Your task to perform on an android device: turn off sleep mode Image 0: 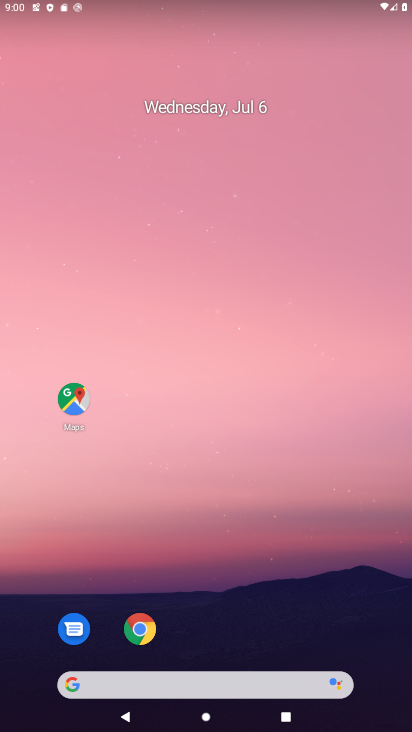
Step 0: drag from (209, 651) to (236, 186)
Your task to perform on an android device: turn off sleep mode Image 1: 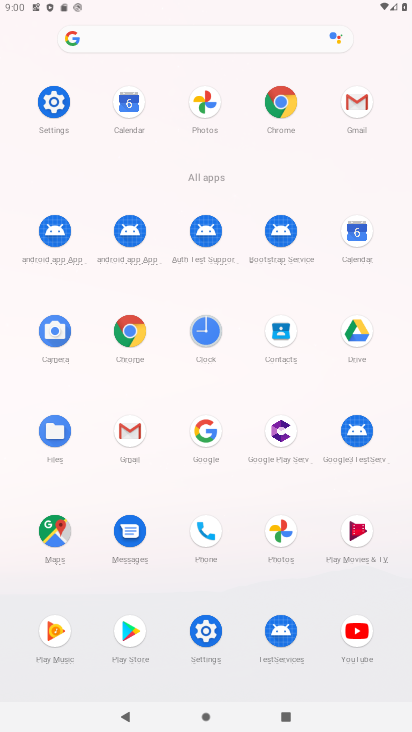
Step 1: click (205, 636)
Your task to perform on an android device: turn off sleep mode Image 2: 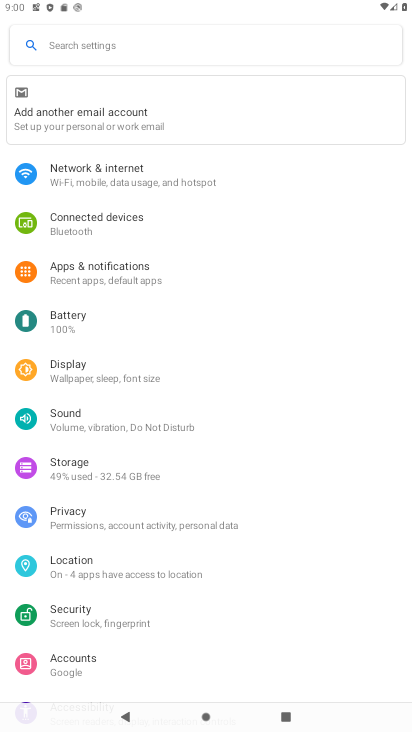
Step 2: click (92, 369)
Your task to perform on an android device: turn off sleep mode Image 3: 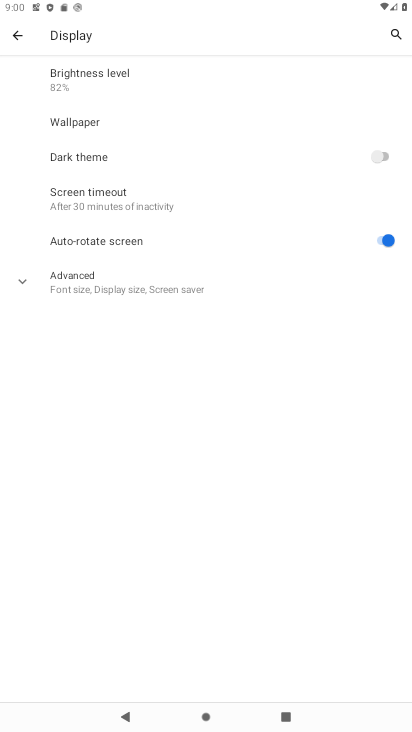
Step 3: click (86, 190)
Your task to perform on an android device: turn off sleep mode Image 4: 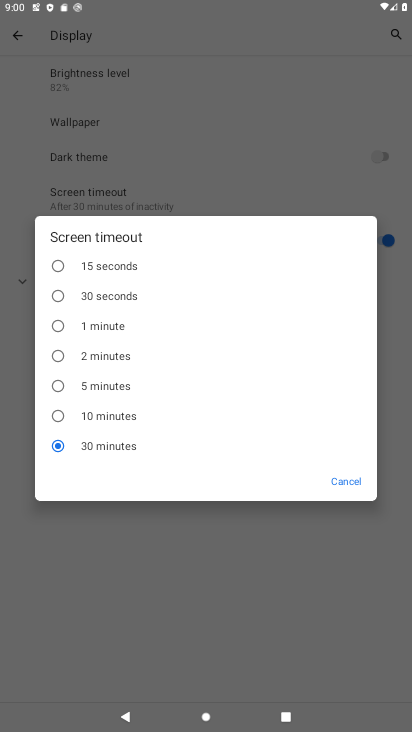
Step 4: task complete